Your task to perform on an android device: refresh tabs in the chrome app Image 0: 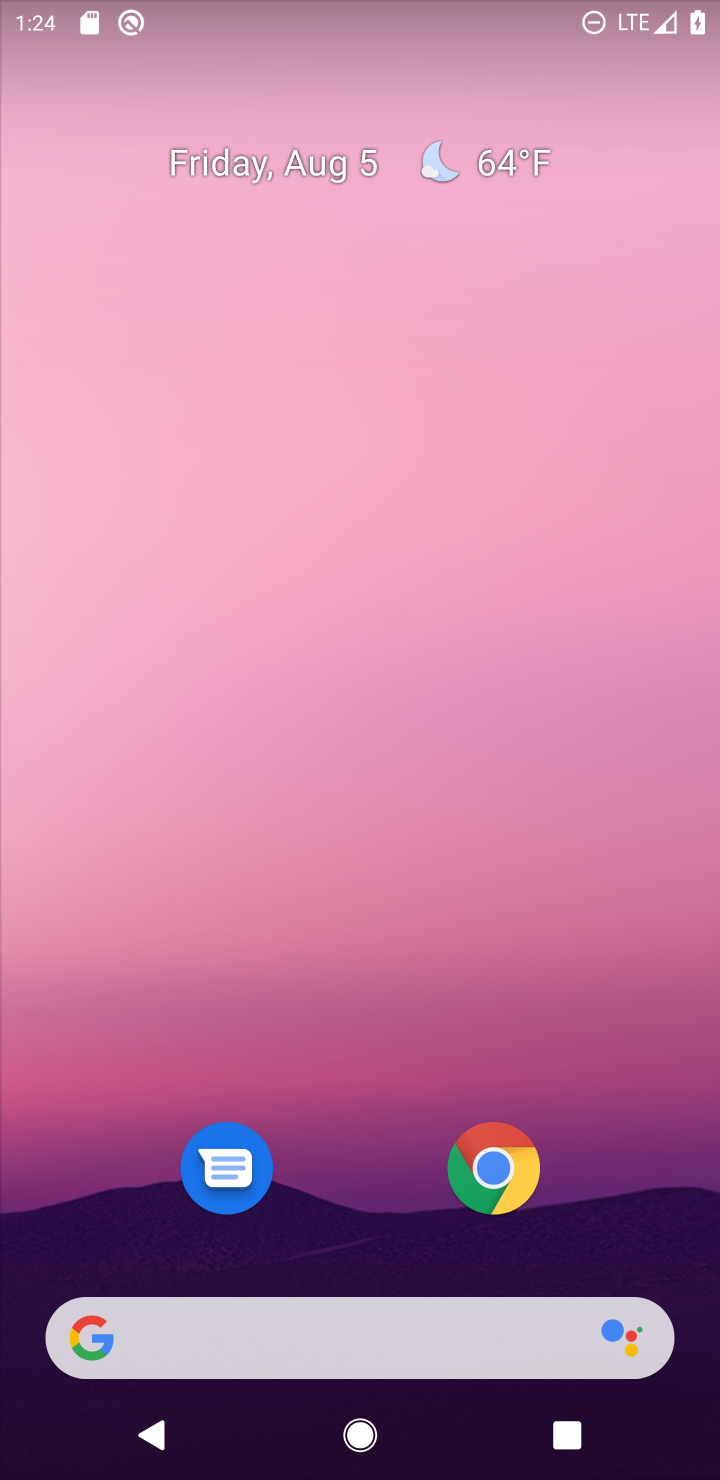
Step 0: drag from (583, 1040) to (339, 48)
Your task to perform on an android device: refresh tabs in the chrome app Image 1: 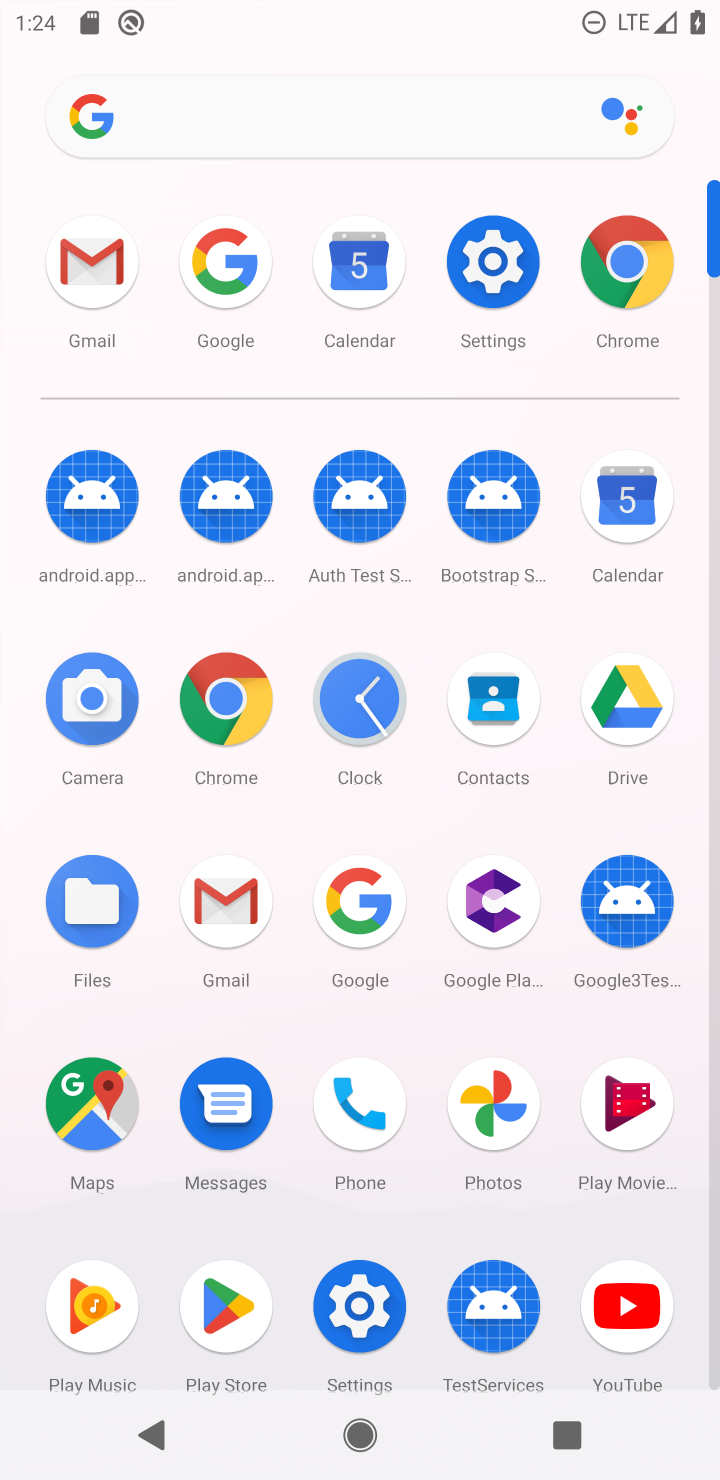
Step 1: click (634, 303)
Your task to perform on an android device: refresh tabs in the chrome app Image 2: 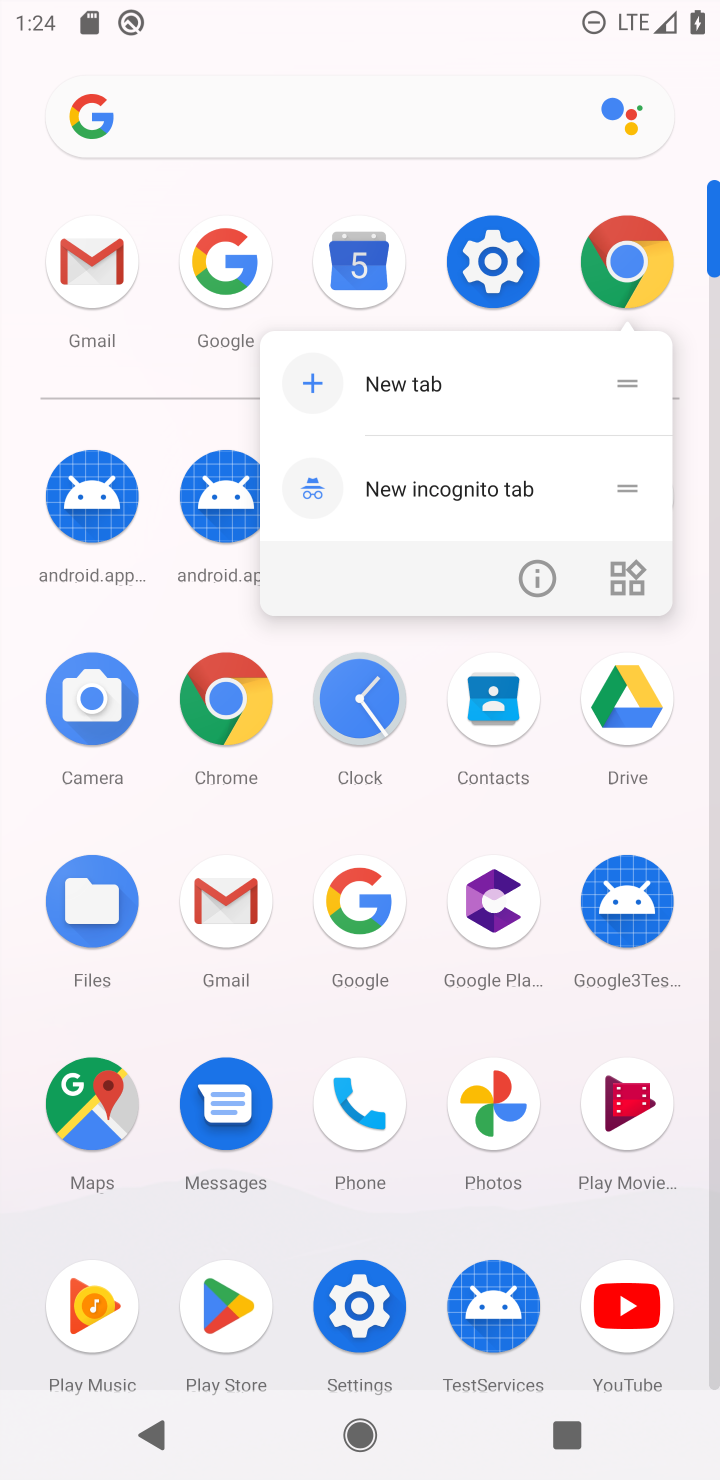
Step 2: click (597, 228)
Your task to perform on an android device: refresh tabs in the chrome app Image 3: 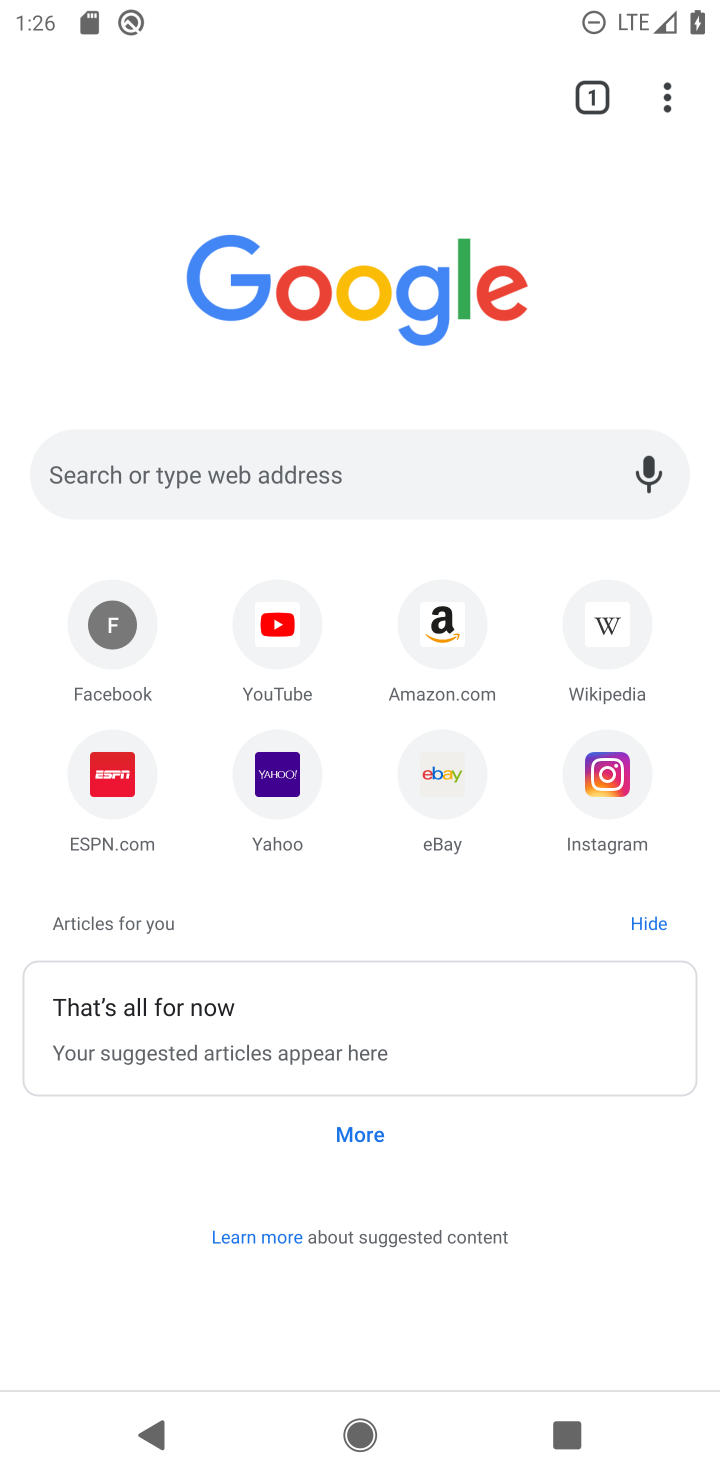
Step 3: click (666, 90)
Your task to perform on an android device: refresh tabs in the chrome app Image 4: 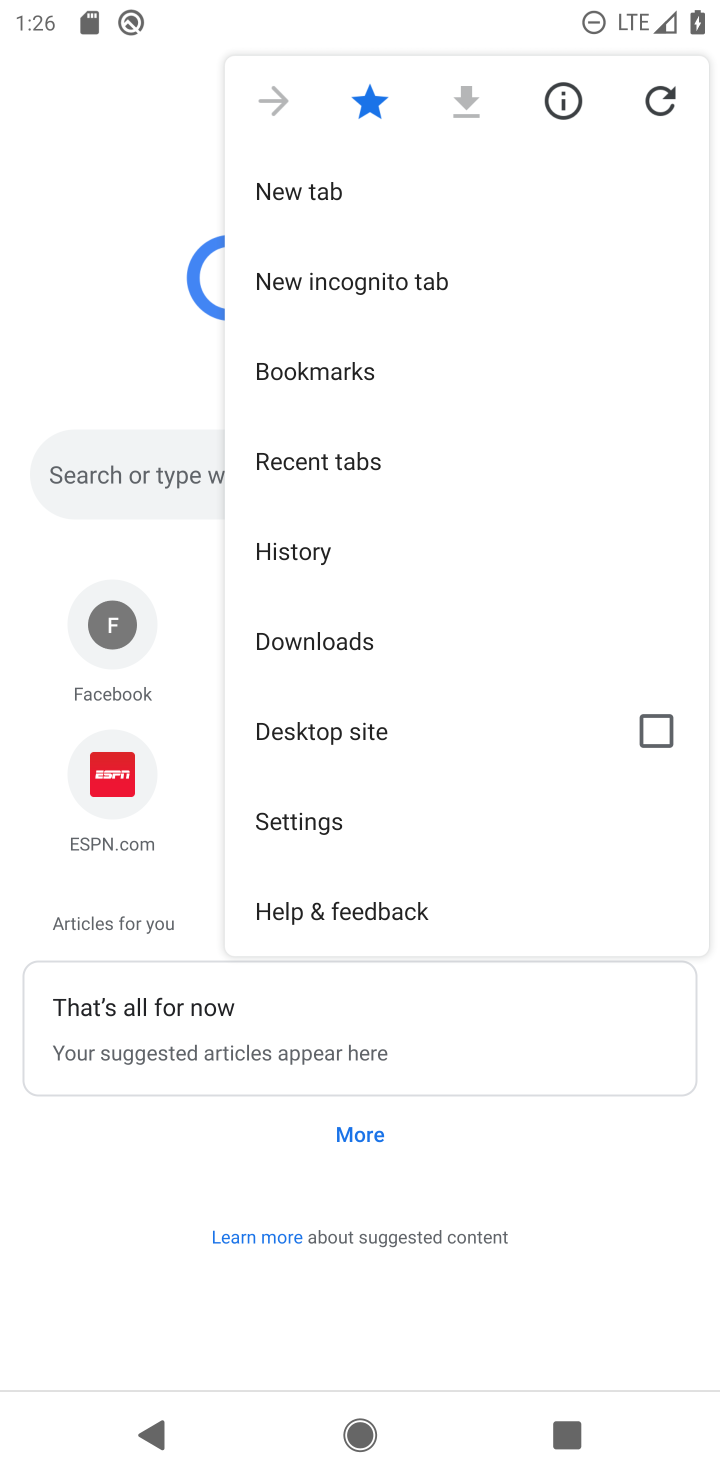
Step 4: click (651, 105)
Your task to perform on an android device: refresh tabs in the chrome app Image 5: 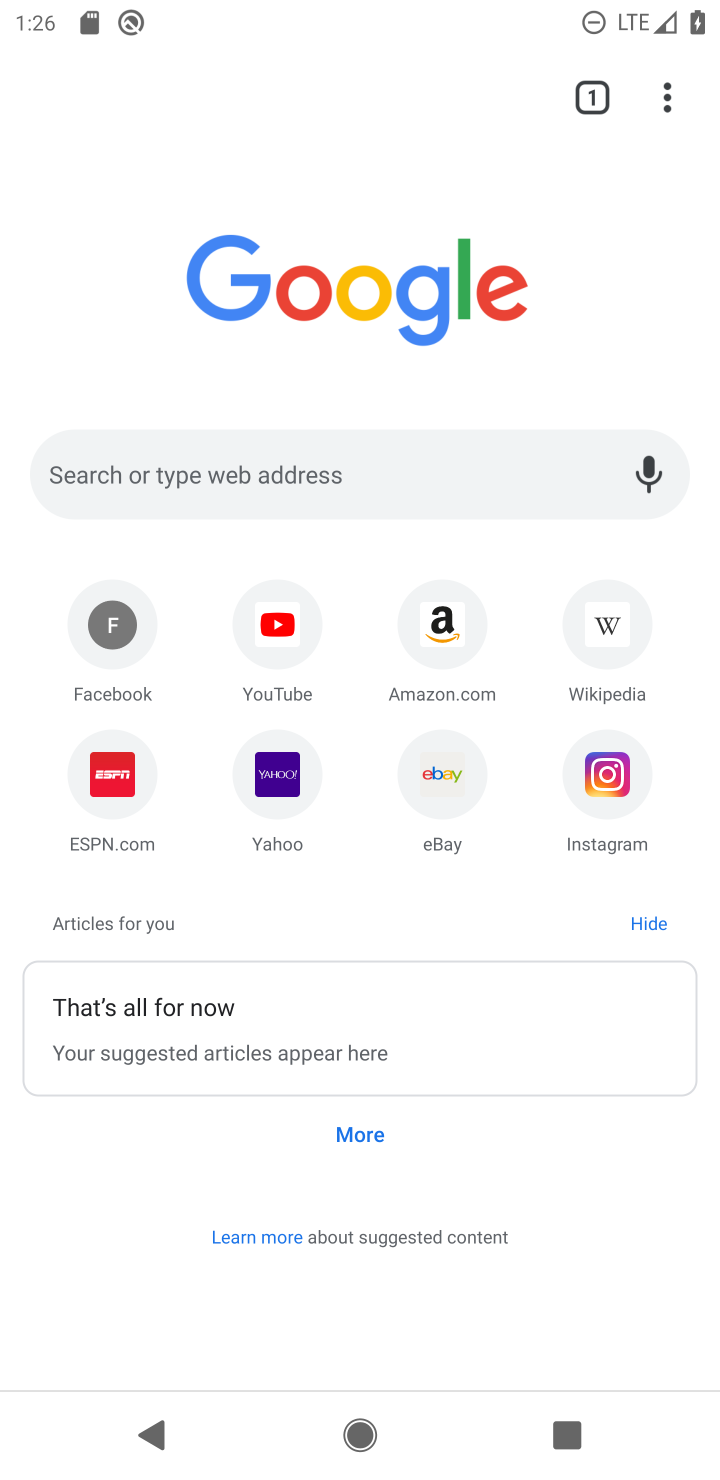
Step 5: task complete